Your task to perform on an android device: What's on my calendar today? Image 0: 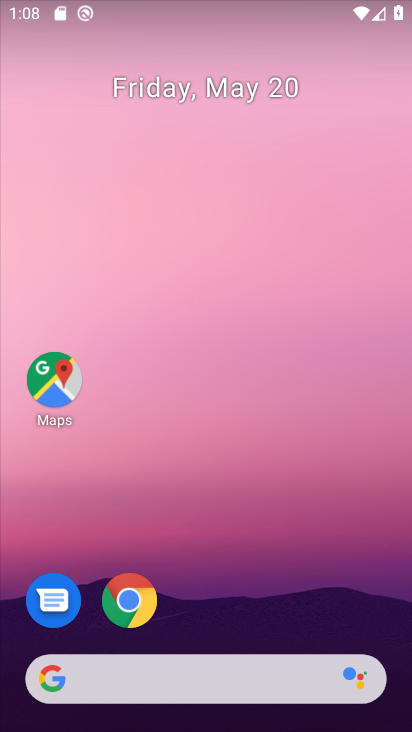
Step 0: click (168, 94)
Your task to perform on an android device: What's on my calendar today? Image 1: 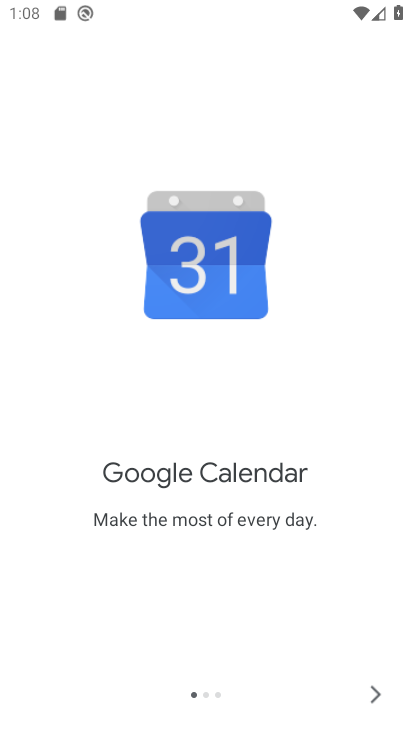
Step 1: click (376, 695)
Your task to perform on an android device: What's on my calendar today? Image 2: 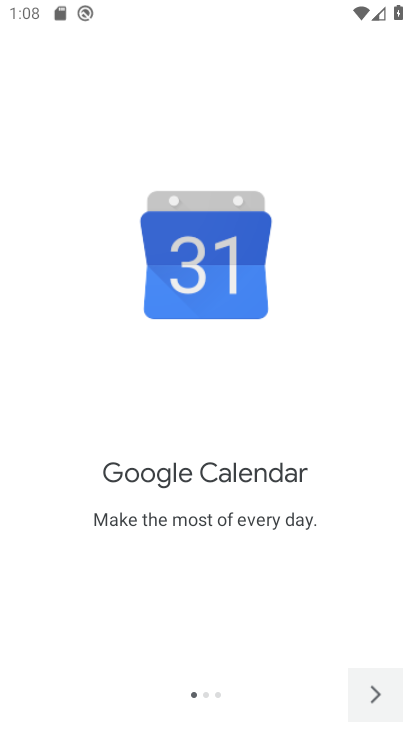
Step 2: click (371, 691)
Your task to perform on an android device: What's on my calendar today? Image 3: 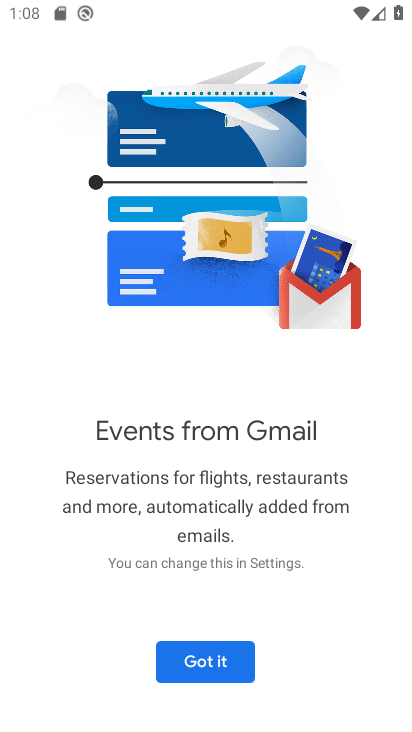
Step 3: click (223, 661)
Your task to perform on an android device: What's on my calendar today? Image 4: 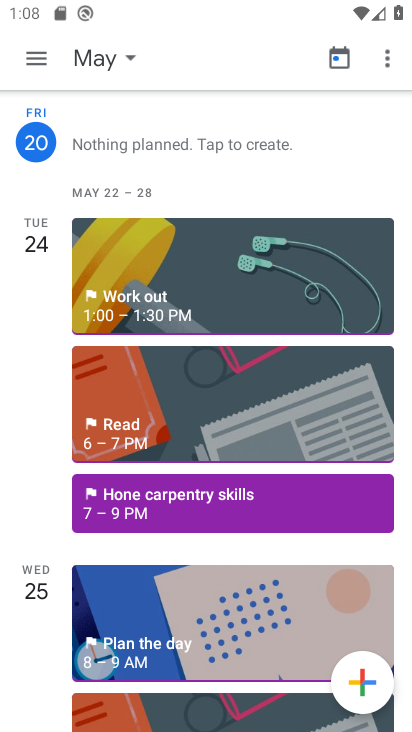
Step 4: task complete